Your task to perform on an android device: Open sound settings Image 0: 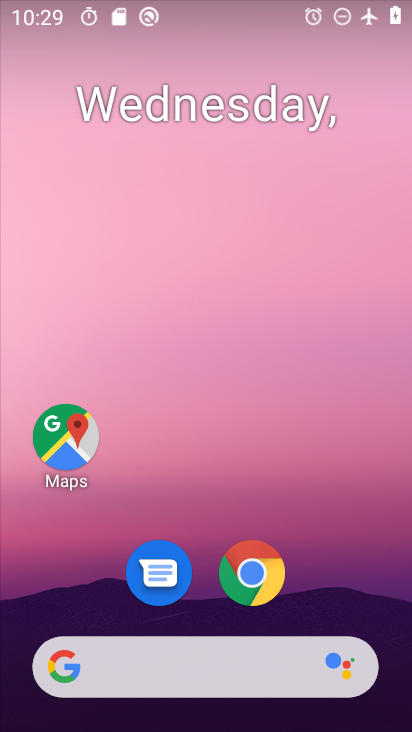
Step 0: drag from (337, 597) to (296, 284)
Your task to perform on an android device: Open sound settings Image 1: 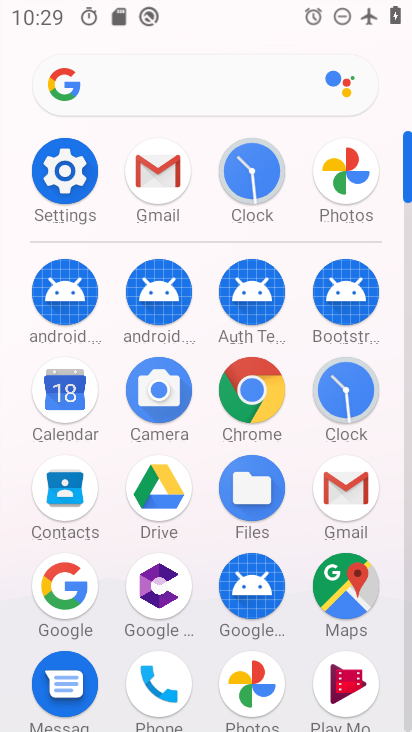
Step 1: drag from (328, 605) to (342, 327)
Your task to perform on an android device: Open sound settings Image 2: 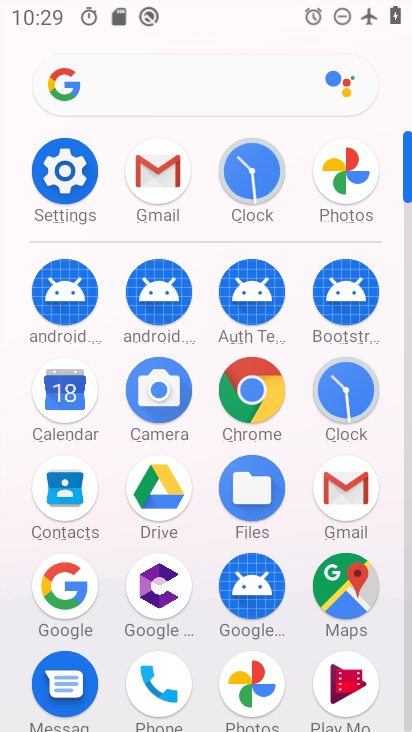
Step 2: drag from (272, 518) to (259, 237)
Your task to perform on an android device: Open sound settings Image 3: 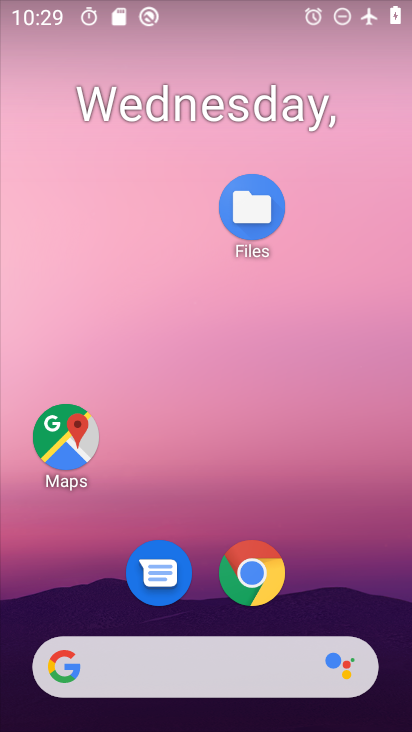
Step 3: drag from (385, 523) to (394, 393)
Your task to perform on an android device: Open sound settings Image 4: 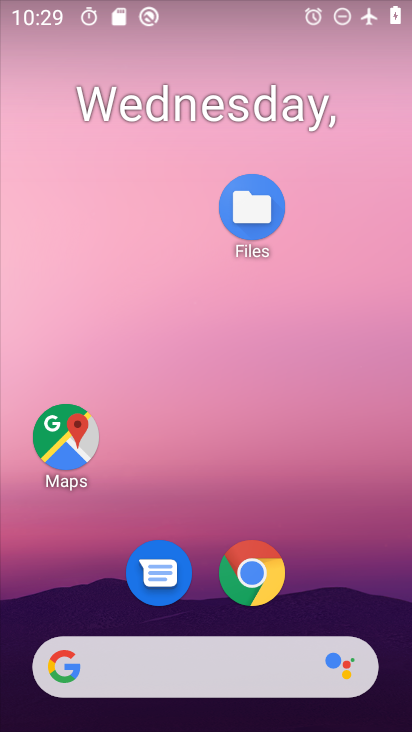
Step 4: drag from (241, 565) to (278, 193)
Your task to perform on an android device: Open sound settings Image 5: 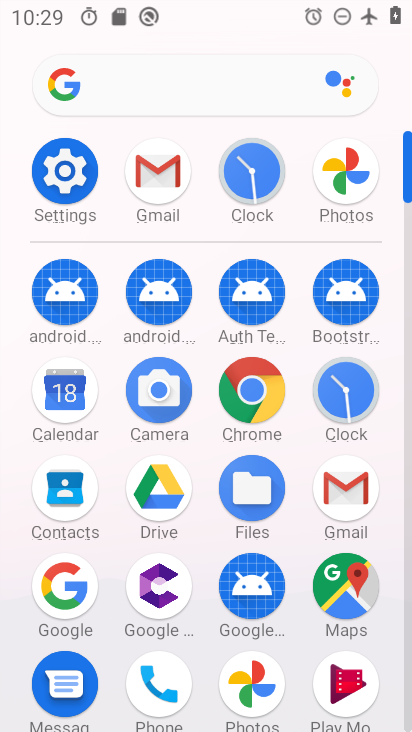
Step 5: click (82, 169)
Your task to perform on an android device: Open sound settings Image 6: 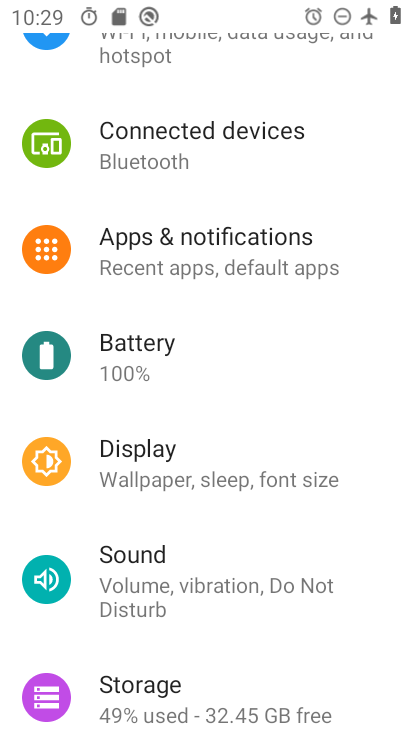
Step 6: drag from (175, 253) to (153, 425)
Your task to perform on an android device: Open sound settings Image 7: 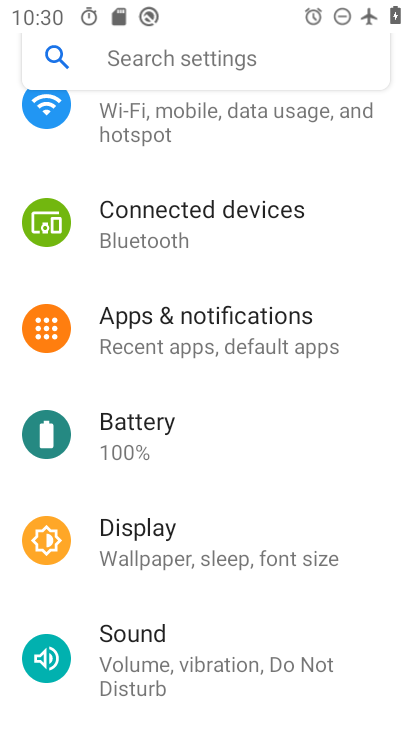
Step 7: drag from (181, 400) to (193, 255)
Your task to perform on an android device: Open sound settings Image 8: 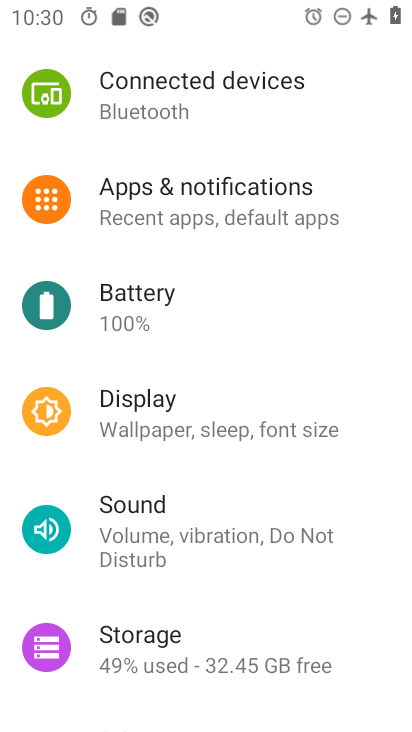
Step 8: click (213, 522)
Your task to perform on an android device: Open sound settings Image 9: 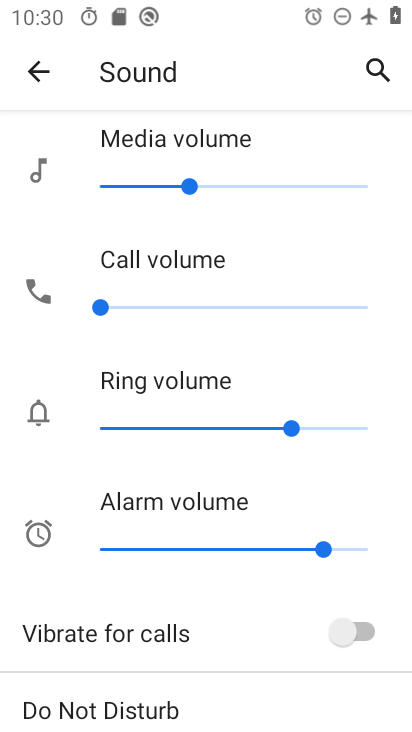
Step 9: task complete